Your task to perform on an android device: Go to Amazon Image 0: 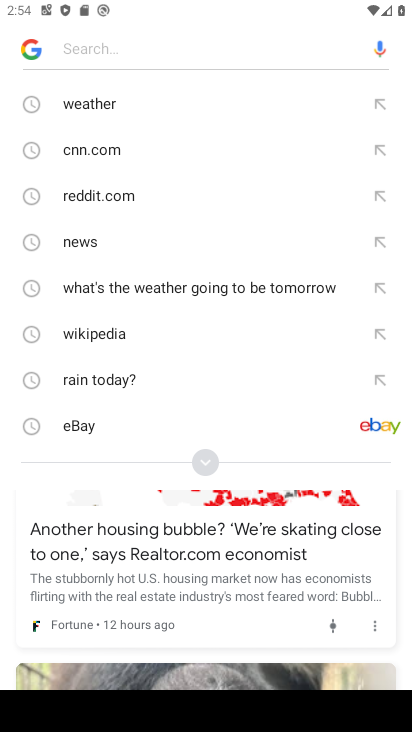
Step 0: press back button
Your task to perform on an android device: Go to Amazon Image 1: 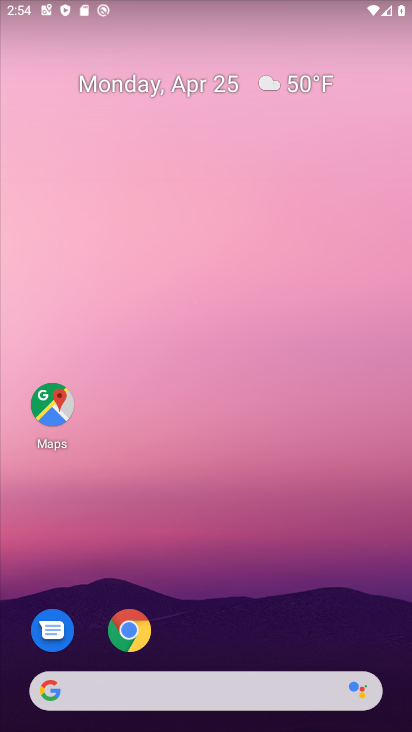
Step 1: click (120, 634)
Your task to perform on an android device: Go to Amazon Image 2: 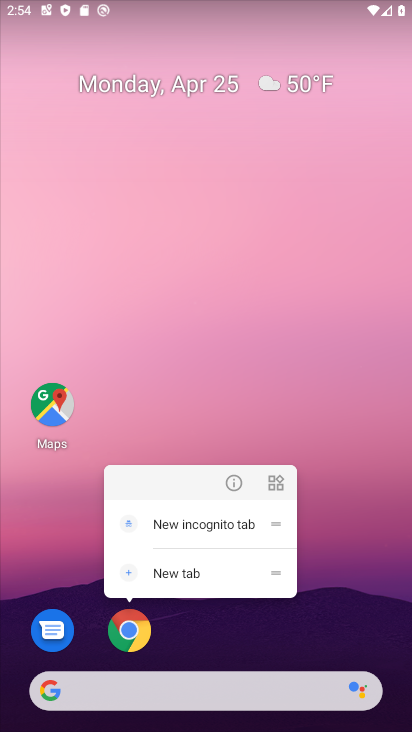
Step 2: click (129, 628)
Your task to perform on an android device: Go to Amazon Image 3: 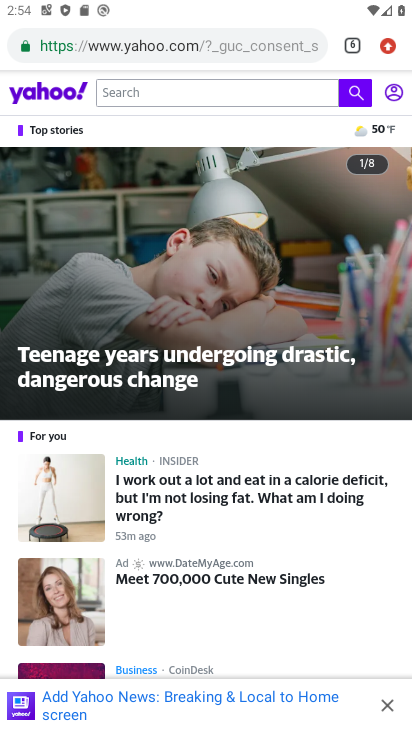
Step 3: click (354, 47)
Your task to perform on an android device: Go to Amazon Image 4: 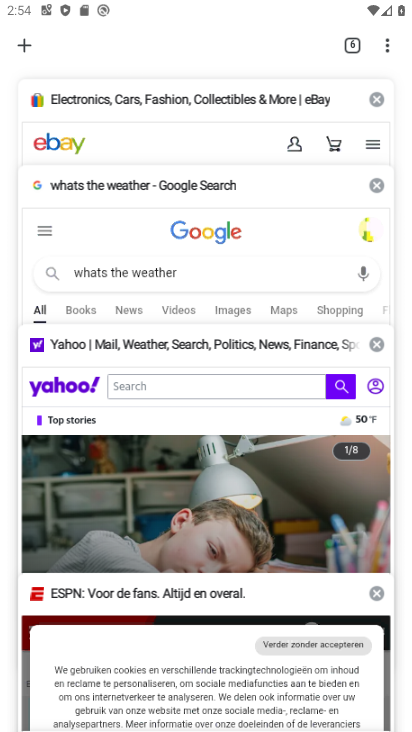
Step 4: click (25, 45)
Your task to perform on an android device: Go to Amazon Image 5: 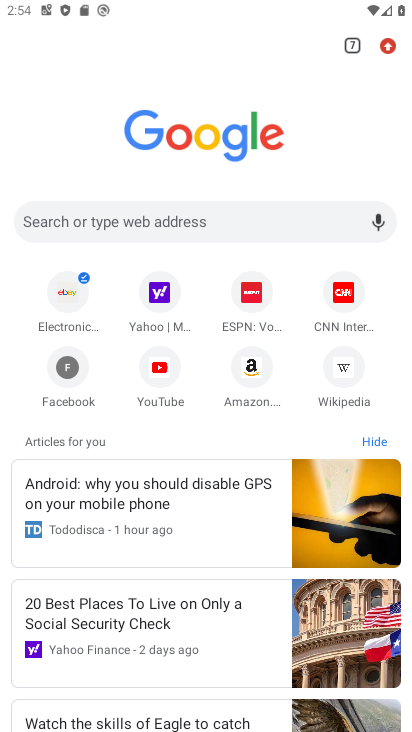
Step 5: click (247, 378)
Your task to perform on an android device: Go to Amazon Image 6: 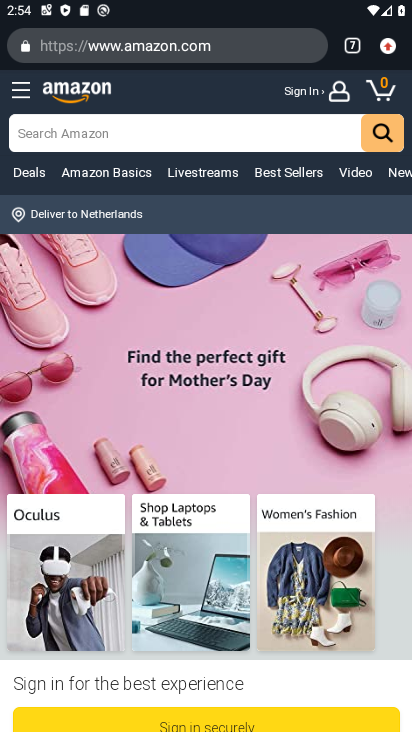
Step 6: task complete